Your task to perform on an android device: Open calendar and show me the third week of next month Image 0: 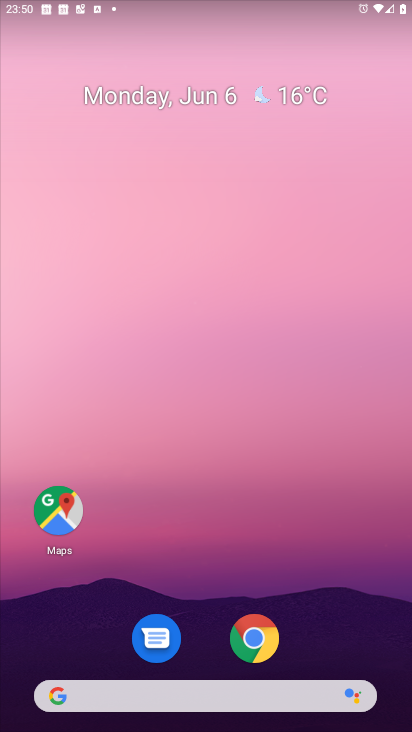
Step 0: drag from (290, 366) to (274, 127)
Your task to perform on an android device: Open calendar and show me the third week of next month Image 1: 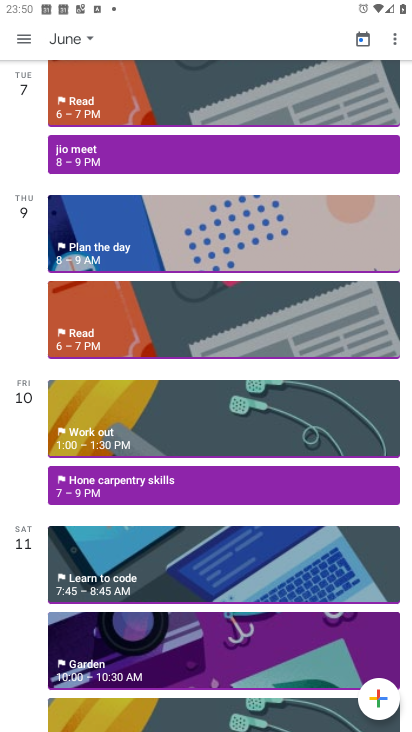
Step 1: click (22, 33)
Your task to perform on an android device: Open calendar and show me the third week of next month Image 2: 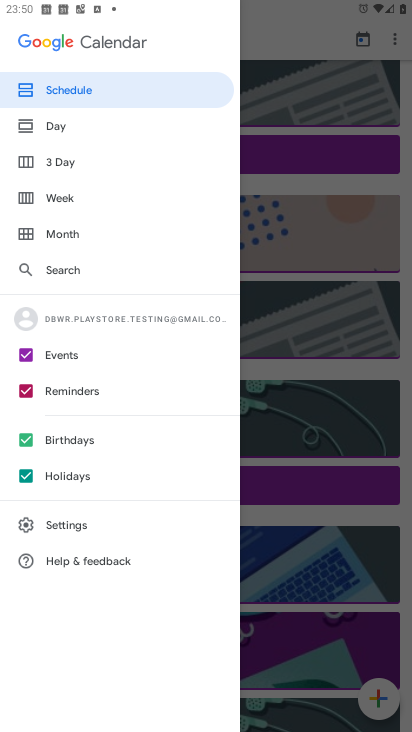
Step 2: click (63, 233)
Your task to perform on an android device: Open calendar and show me the third week of next month Image 3: 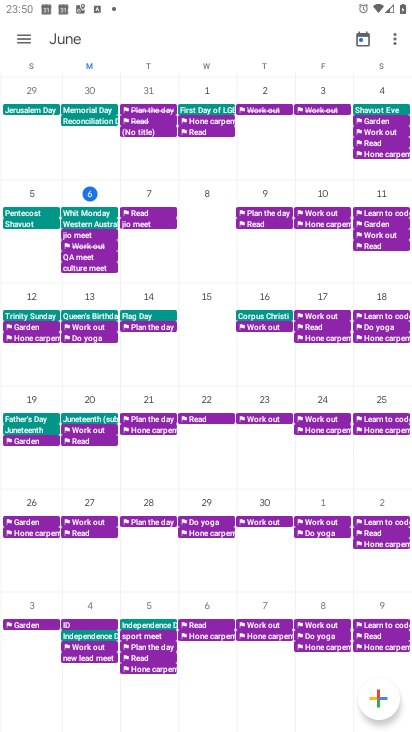
Step 3: drag from (380, 469) to (20, 445)
Your task to perform on an android device: Open calendar and show me the third week of next month Image 4: 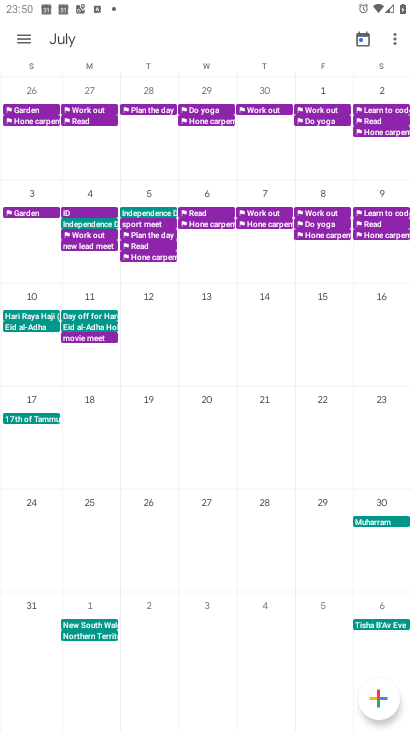
Step 4: click (81, 414)
Your task to perform on an android device: Open calendar and show me the third week of next month Image 5: 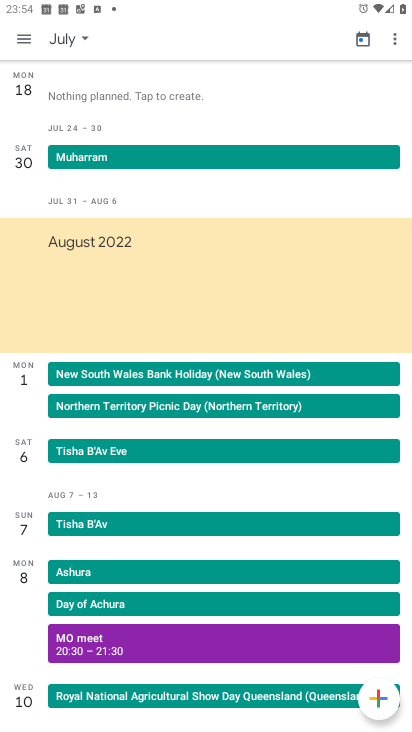
Step 5: task complete